Your task to perform on an android device: turn off smart reply in the gmail app Image 0: 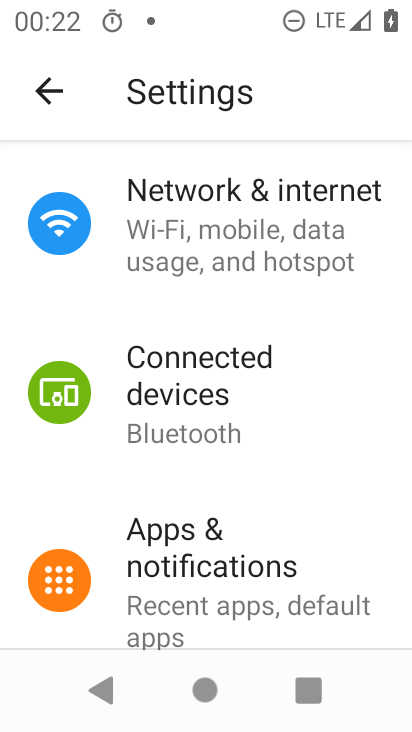
Step 0: drag from (219, 470) to (229, 215)
Your task to perform on an android device: turn off smart reply in the gmail app Image 1: 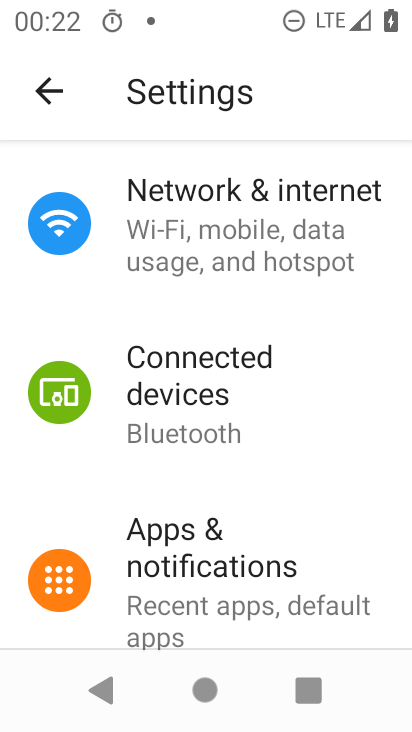
Step 1: press home button
Your task to perform on an android device: turn off smart reply in the gmail app Image 2: 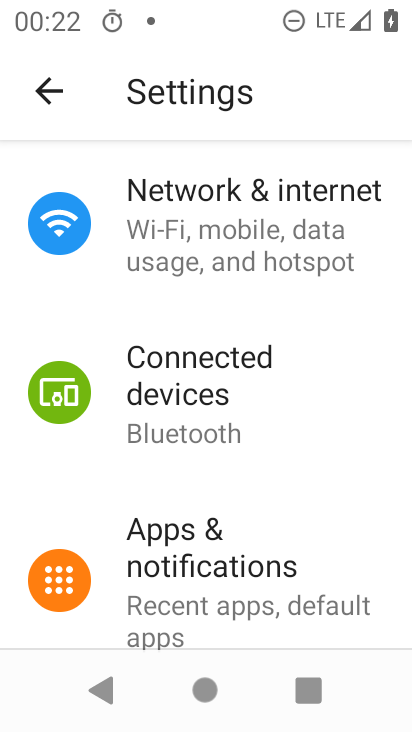
Step 2: click (236, 167)
Your task to perform on an android device: turn off smart reply in the gmail app Image 3: 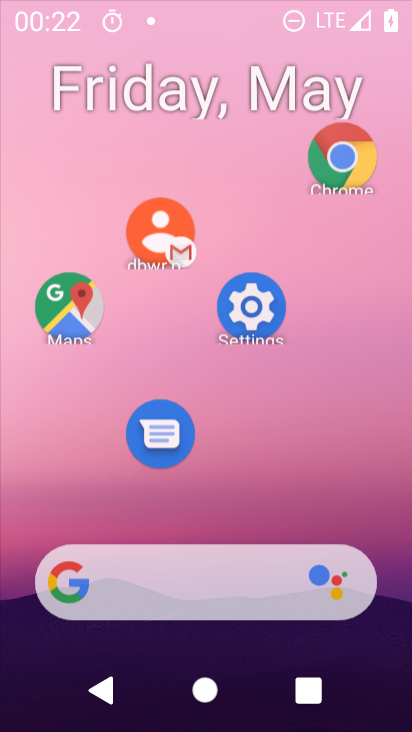
Step 3: click (238, 131)
Your task to perform on an android device: turn off smart reply in the gmail app Image 4: 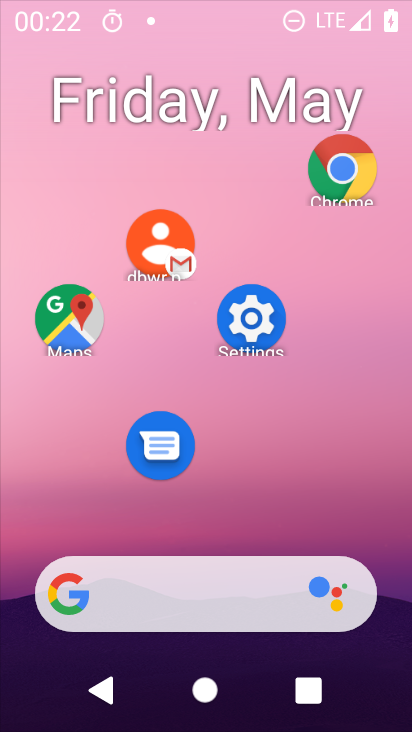
Step 4: click (306, 16)
Your task to perform on an android device: turn off smart reply in the gmail app Image 5: 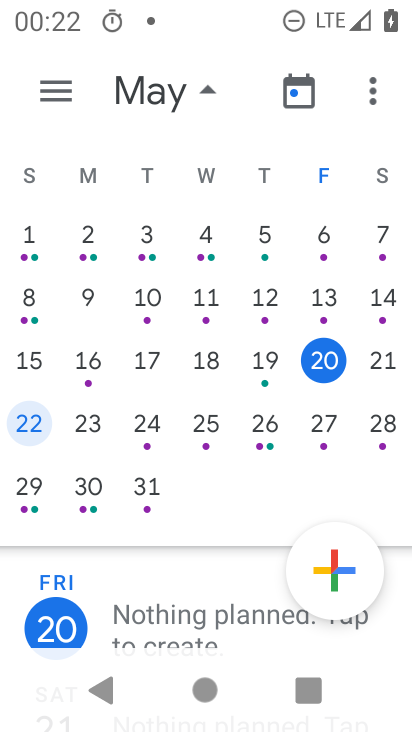
Step 5: drag from (187, 502) to (243, 171)
Your task to perform on an android device: turn off smart reply in the gmail app Image 6: 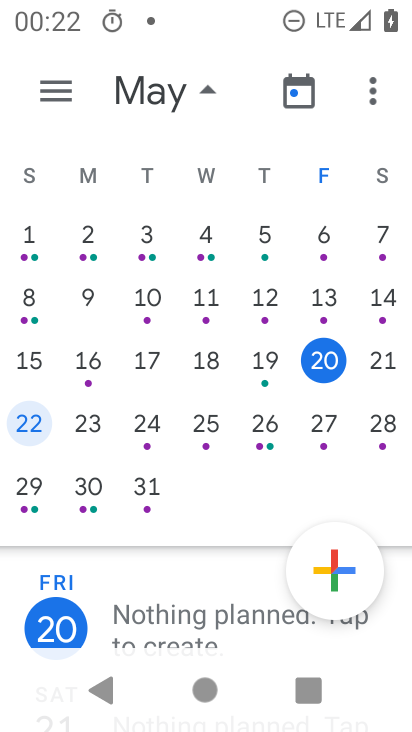
Step 6: press home button
Your task to perform on an android device: turn off smart reply in the gmail app Image 7: 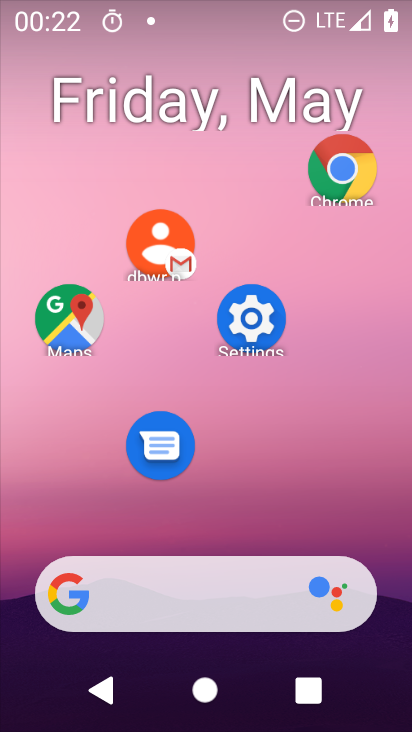
Step 7: drag from (233, 536) to (210, 147)
Your task to perform on an android device: turn off smart reply in the gmail app Image 8: 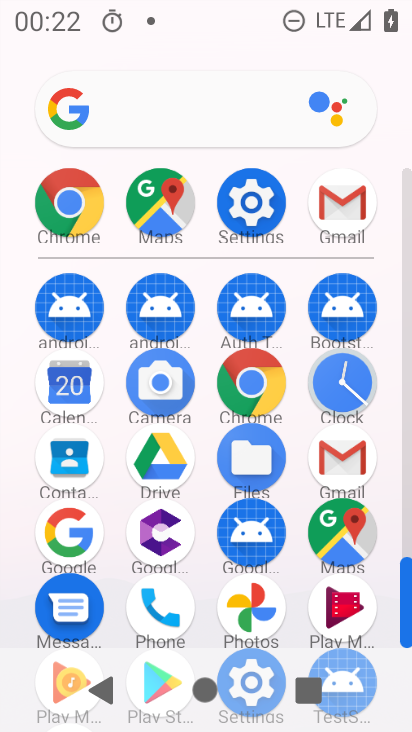
Step 8: drag from (222, 531) to (193, 209)
Your task to perform on an android device: turn off smart reply in the gmail app Image 9: 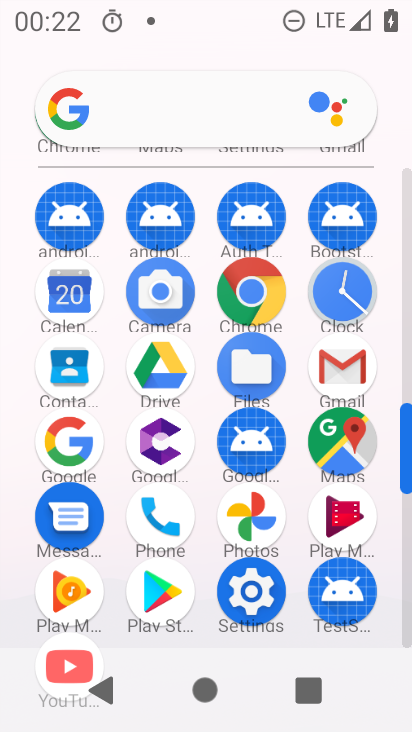
Step 9: drag from (223, 254) to (223, 170)
Your task to perform on an android device: turn off smart reply in the gmail app Image 10: 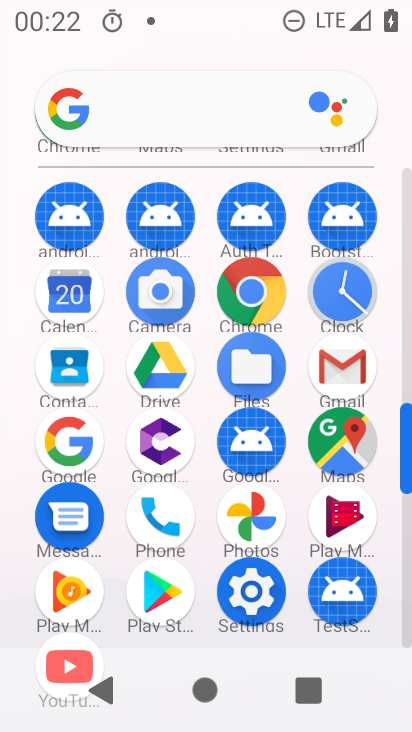
Step 10: click (334, 359)
Your task to perform on an android device: turn off smart reply in the gmail app Image 11: 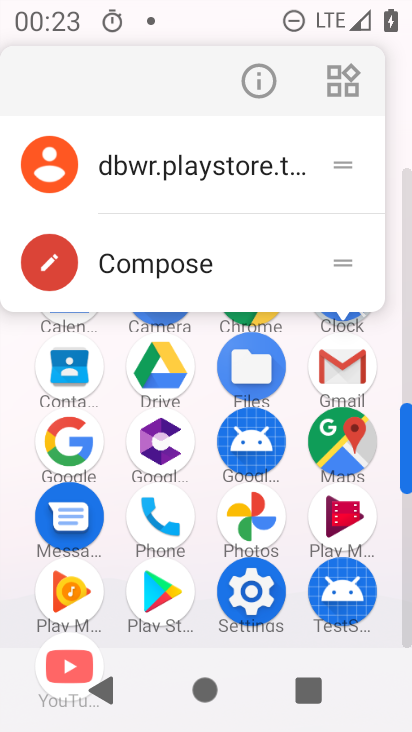
Step 11: click (260, 80)
Your task to perform on an android device: turn off smart reply in the gmail app Image 12: 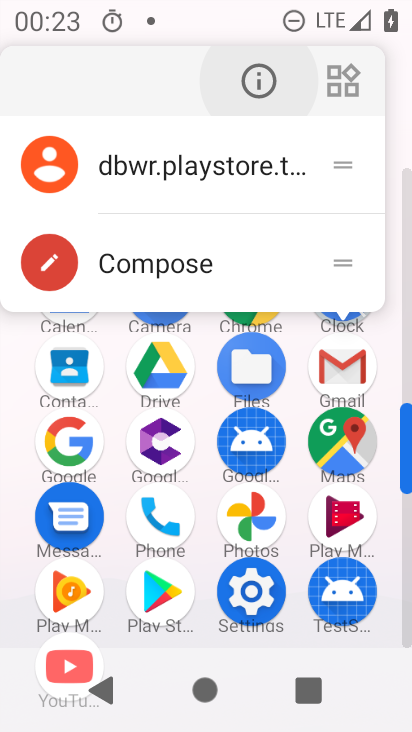
Step 12: click (259, 78)
Your task to perform on an android device: turn off smart reply in the gmail app Image 13: 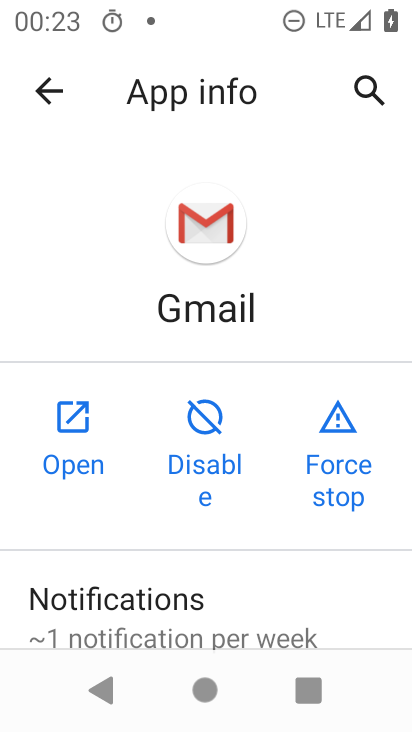
Step 13: click (63, 435)
Your task to perform on an android device: turn off smart reply in the gmail app Image 14: 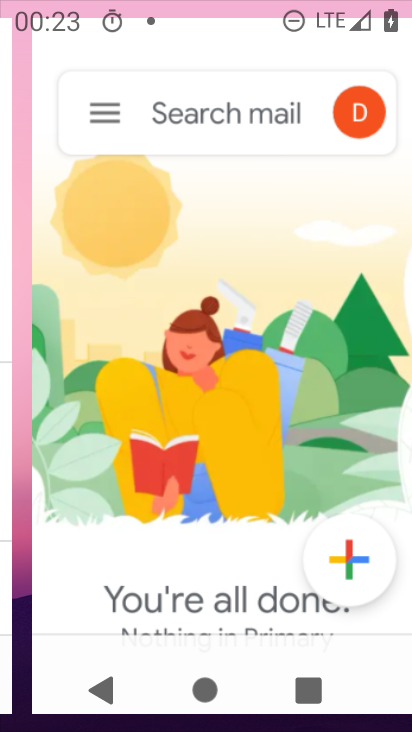
Step 14: click (82, 422)
Your task to perform on an android device: turn off smart reply in the gmail app Image 15: 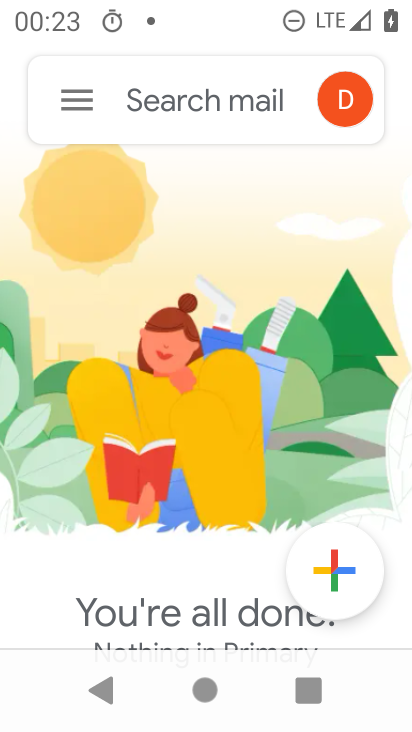
Step 15: click (75, 86)
Your task to perform on an android device: turn off smart reply in the gmail app Image 16: 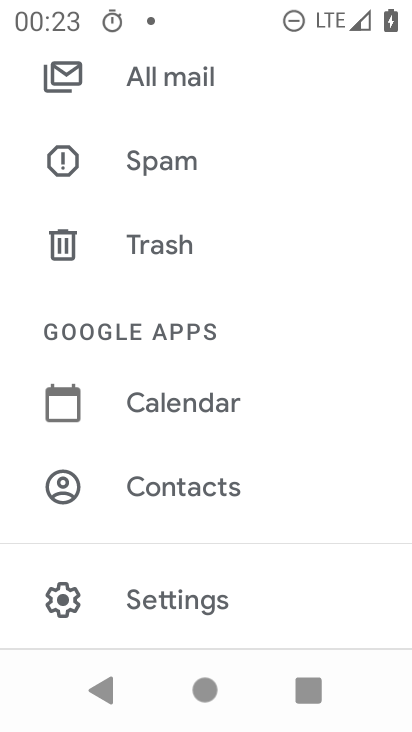
Step 16: drag from (191, 543) to (243, 159)
Your task to perform on an android device: turn off smart reply in the gmail app Image 17: 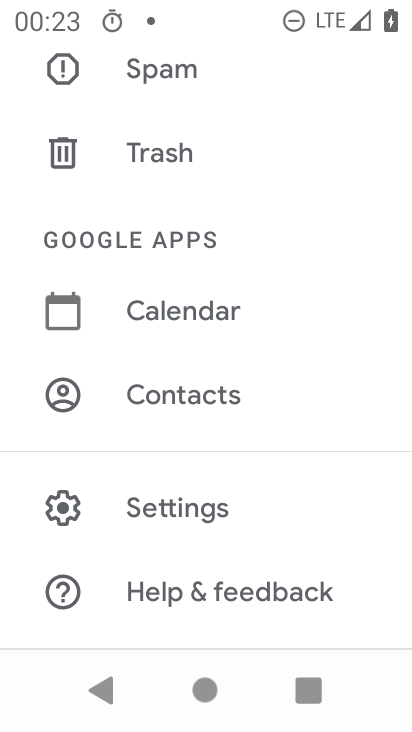
Step 17: click (218, 509)
Your task to perform on an android device: turn off smart reply in the gmail app Image 18: 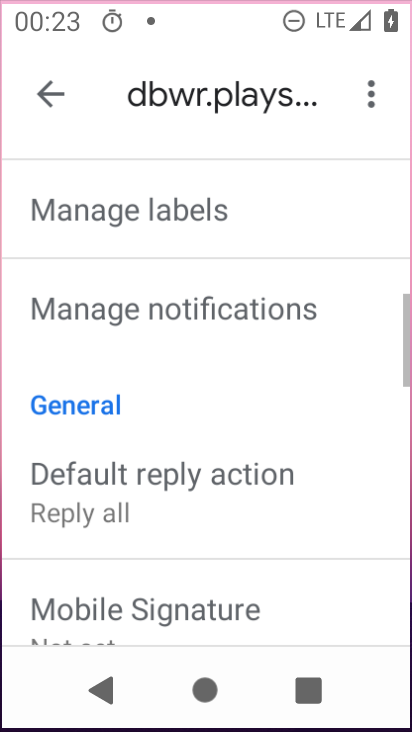
Step 18: drag from (219, 505) to (305, 63)
Your task to perform on an android device: turn off smart reply in the gmail app Image 19: 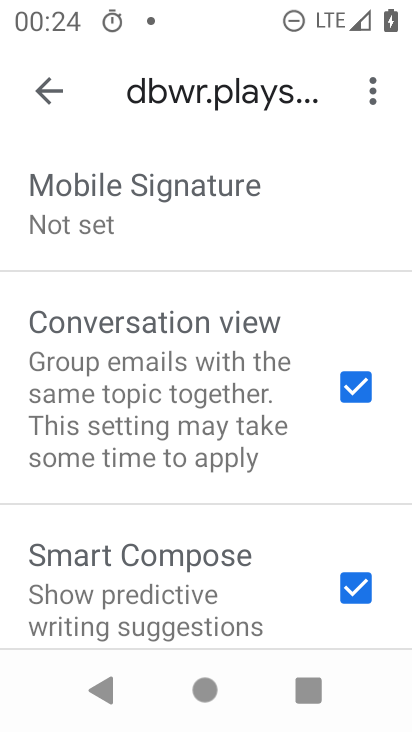
Step 19: drag from (197, 550) to (234, 143)
Your task to perform on an android device: turn off smart reply in the gmail app Image 20: 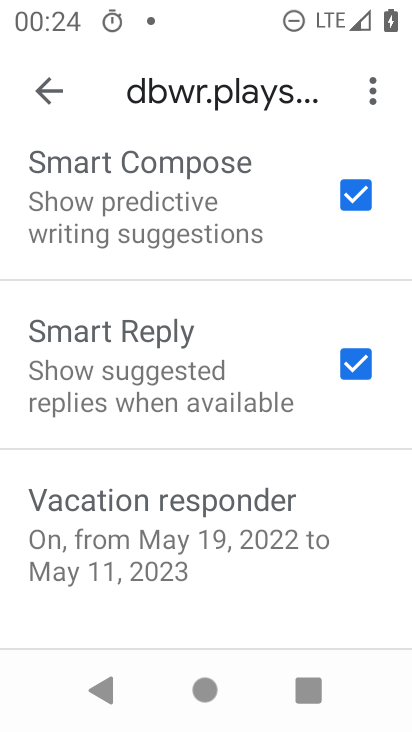
Step 20: click (358, 369)
Your task to perform on an android device: turn off smart reply in the gmail app Image 21: 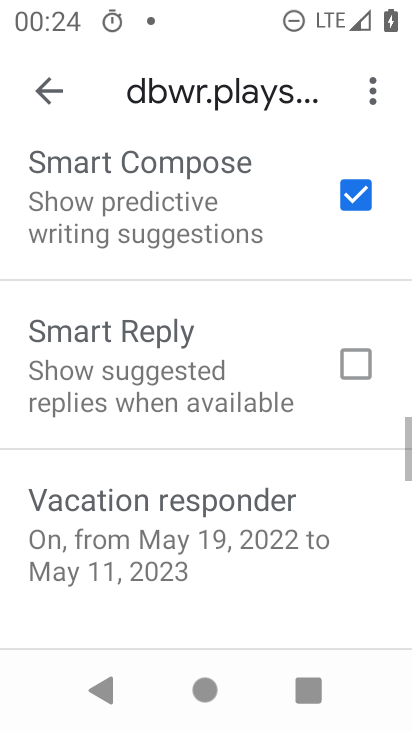
Step 21: task complete